Your task to perform on an android device: What's the weather going to be this weekend? Image 0: 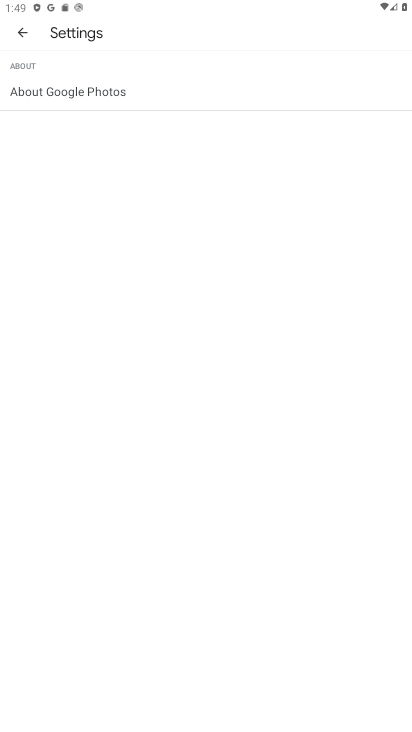
Step 0: press home button
Your task to perform on an android device: What's the weather going to be this weekend? Image 1: 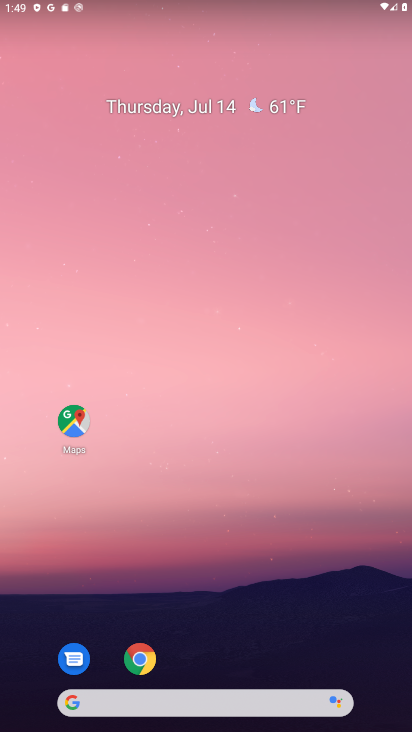
Step 1: drag from (220, 657) to (177, 299)
Your task to perform on an android device: What's the weather going to be this weekend? Image 2: 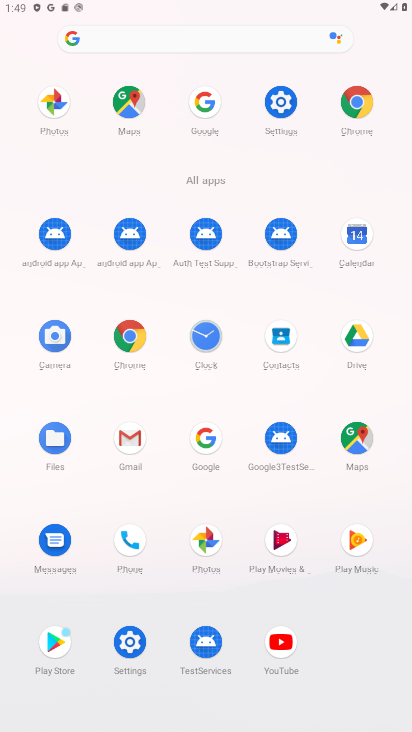
Step 2: click (211, 435)
Your task to perform on an android device: What's the weather going to be this weekend? Image 3: 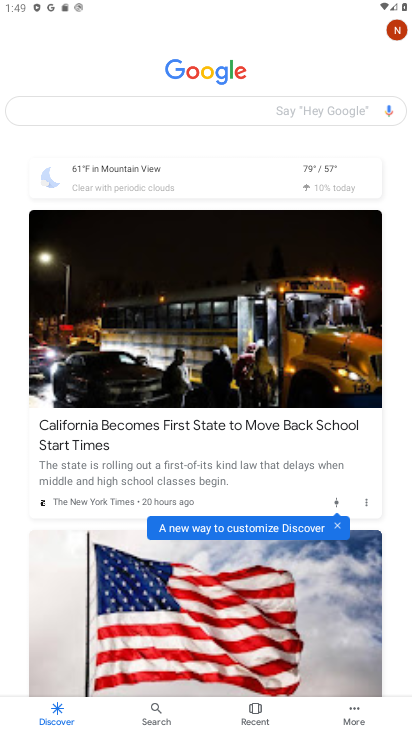
Step 3: click (160, 106)
Your task to perform on an android device: What's the weather going to be this weekend? Image 4: 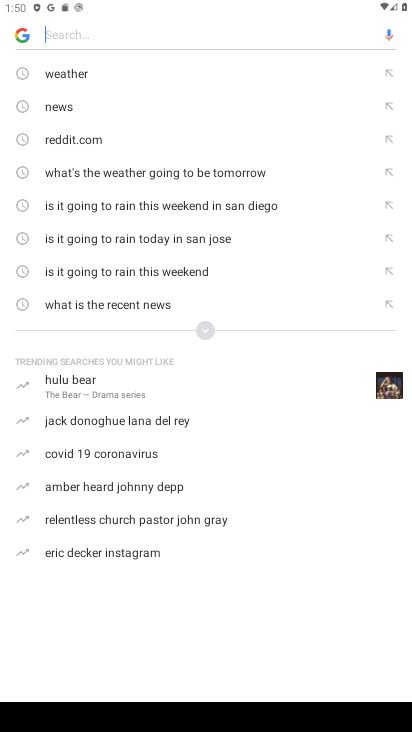
Step 4: click (87, 75)
Your task to perform on an android device: What's the weather going to be this weekend? Image 5: 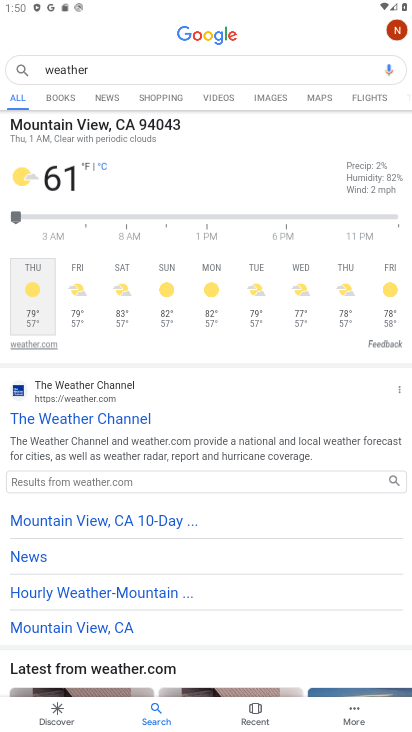
Step 5: task complete